Your task to perform on an android device: Search for seafood restaurants on Google Maps Image 0: 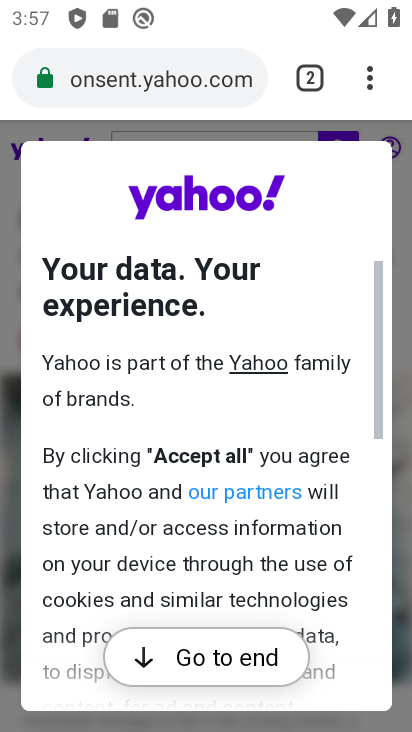
Step 0: press back button
Your task to perform on an android device: Search for seafood restaurants on Google Maps Image 1: 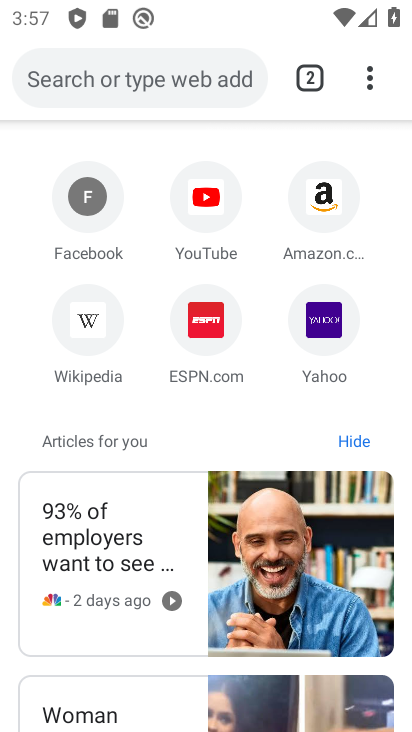
Step 1: press back button
Your task to perform on an android device: Search for seafood restaurants on Google Maps Image 2: 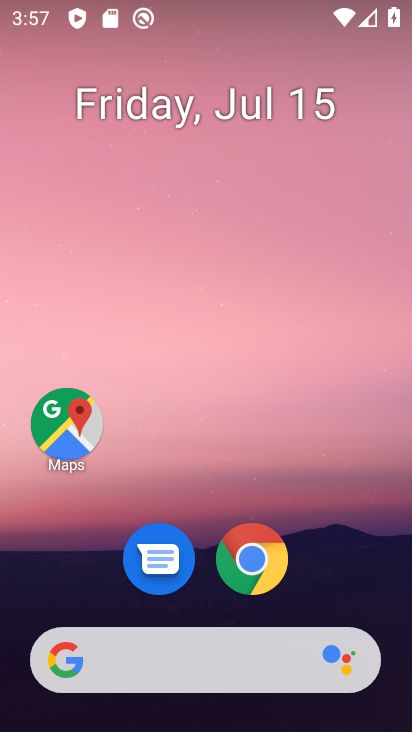
Step 2: click (65, 426)
Your task to perform on an android device: Search for seafood restaurants on Google Maps Image 3: 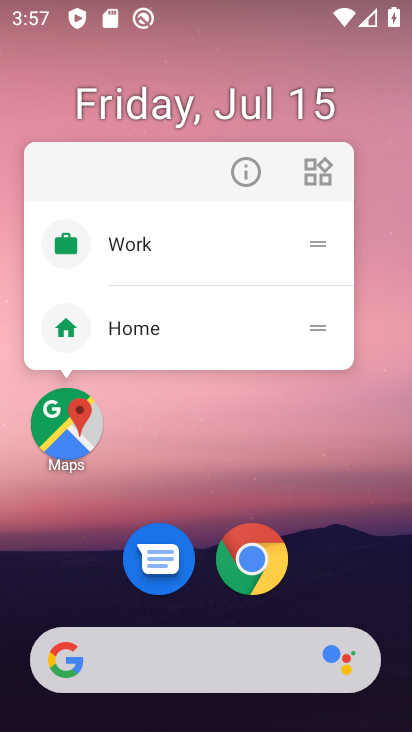
Step 3: click (59, 443)
Your task to perform on an android device: Search for seafood restaurants on Google Maps Image 4: 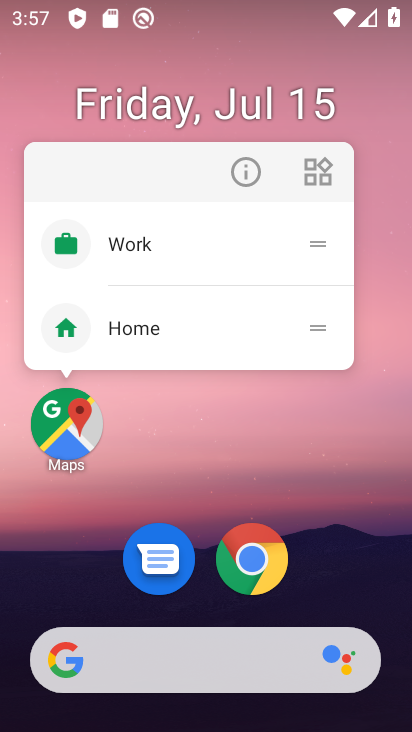
Step 4: click (68, 446)
Your task to perform on an android device: Search for seafood restaurants on Google Maps Image 5: 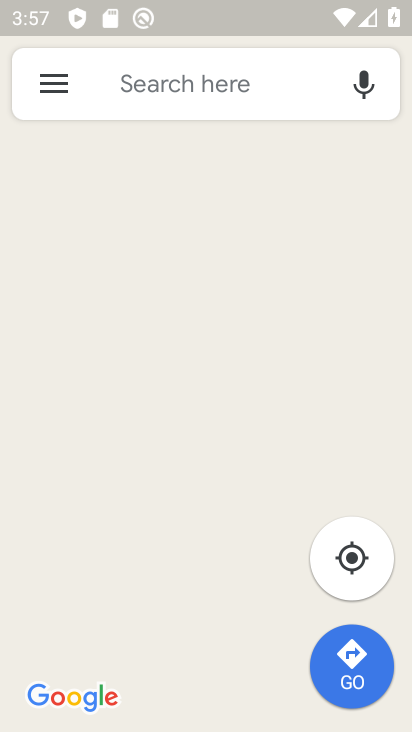
Step 5: click (216, 94)
Your task to perform on an android device: Search for seafood restaurants on Google Maps Image 6: 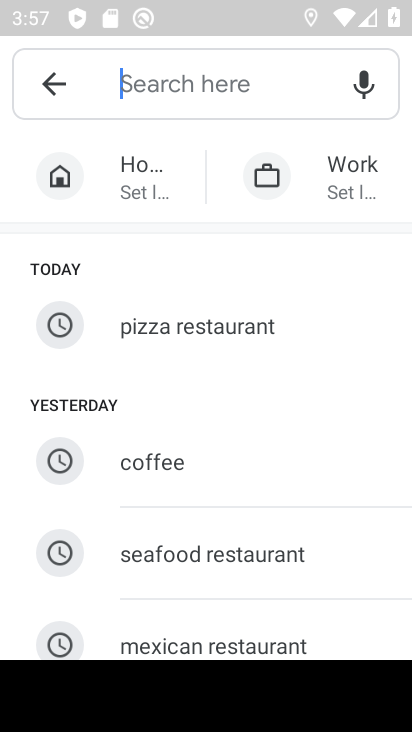
Step 6: type "seafood restaurants"
Your task to perform on an android device: Search for seafood restaurants on Google Maps Image 7: 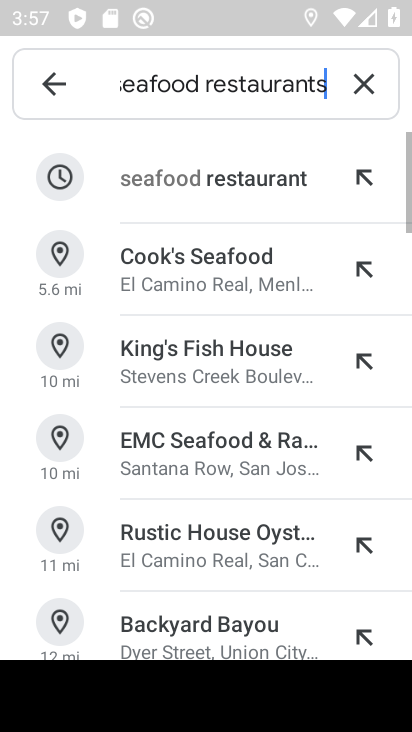
Step 7: click (178, 187)
Your task to perform on an android device: Search for seafood restaurants on Google Maps Image 8: 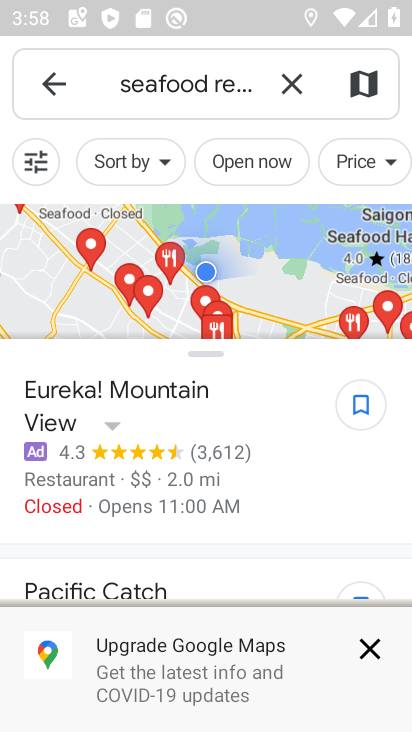
Step 8: task complete